Your task to perform on an android device: Turn on the flashlight Image 0: 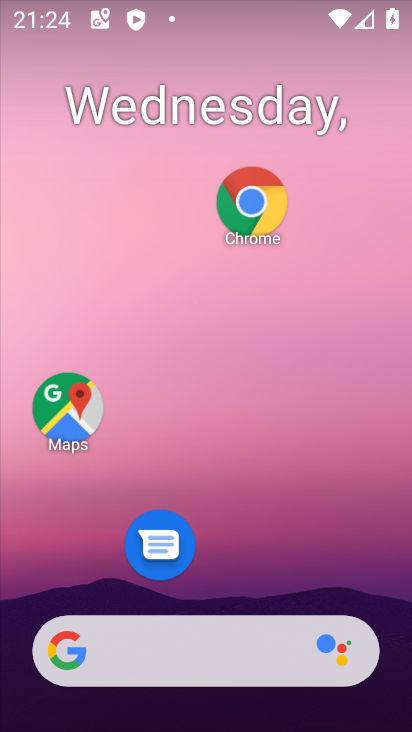
Step 0: drag from (217, 575) to (302, 25)
Your task to perform on an android device: Turn on the flashlight Image 1: 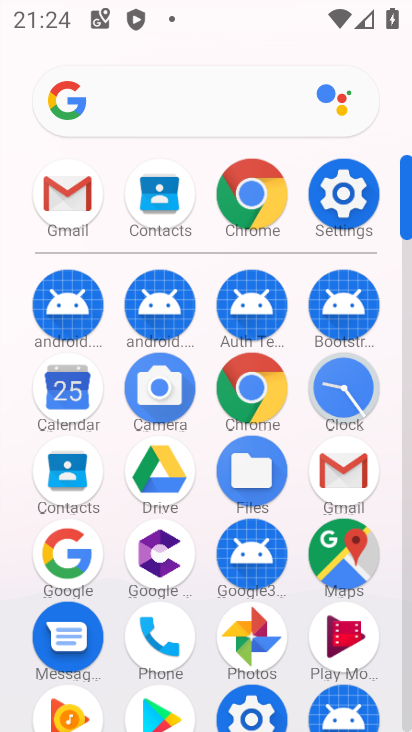
Step 1: click (342, 186)
Your task to perform on an android device: Turn on the flashlight Image 2: 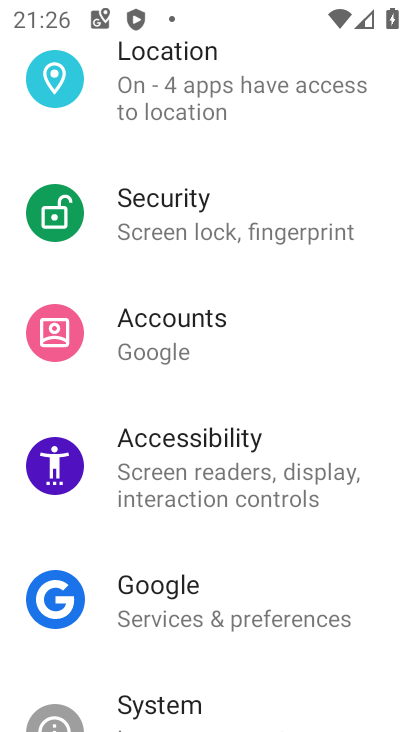
Step 2: task complete